Your task to perform on an android device: delete a single message in the gmail app Image 0: 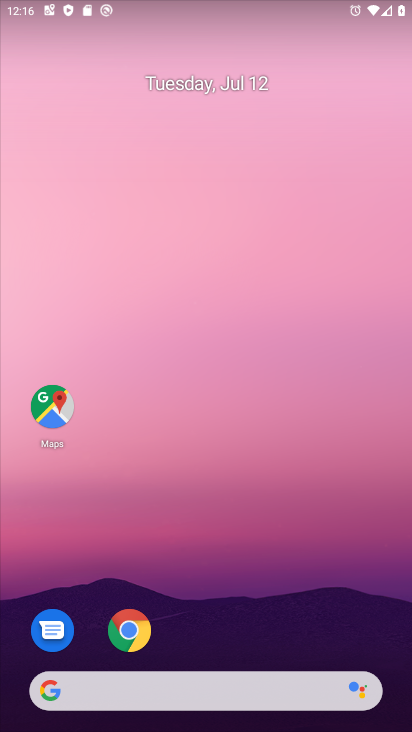
Step 0: drag from (230, 691) to (303, 205)
Your task to perform on an android device: delete a single message in the gmail app Image 1: 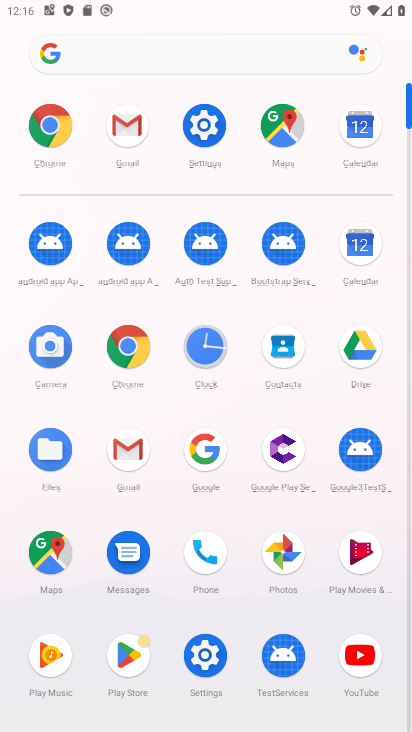
Step 1: click (125, 124)
Your task to perform on an android device: delete a single message in the gmail app Image 2: 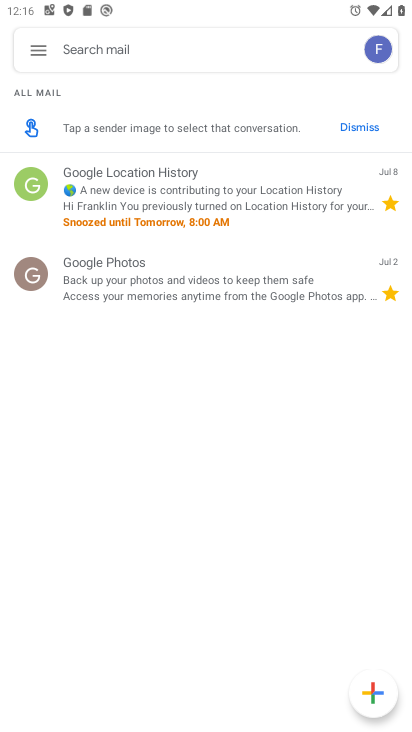
Step 2: click (131, 207)
Your task to perform on an android device: delete a single message in the gmail app Image 3: 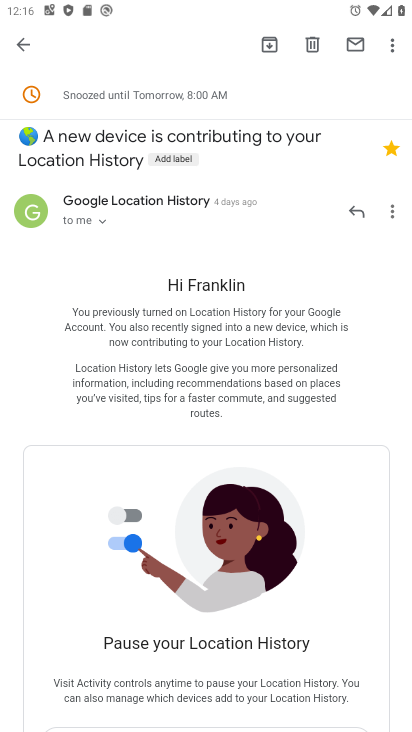
Step 3: click (308, 41)
Your task to perform on an android device: delete a single message in the gmail app Image 4: 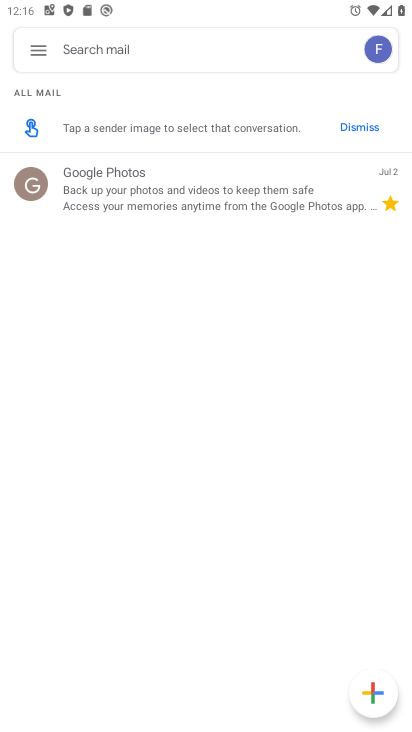
Step 4: task complete